Your task to perform on an android device: turn off picture-in-picture Image 0: 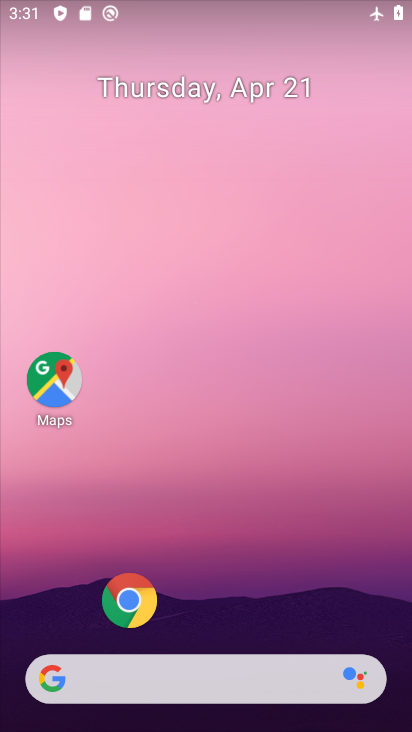
Step 0: drag from (230, 616) to (272, 205)
Your task to perform on an android device: turn off picture-in-picture Image 1: 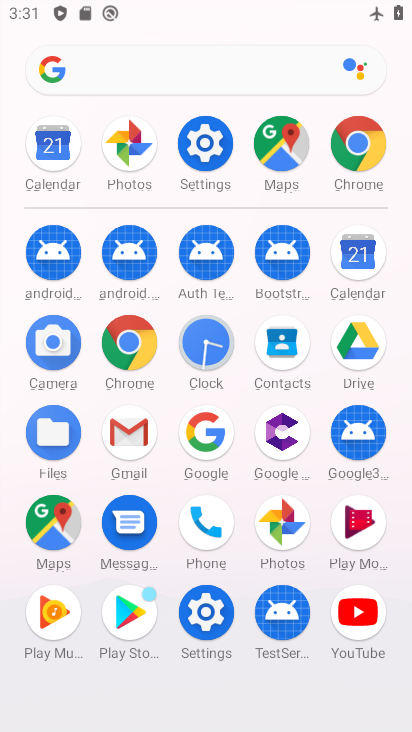
Step 1: click (213, 151)
Your task to perform on an android device: turn off picture-in-picture Image 2: 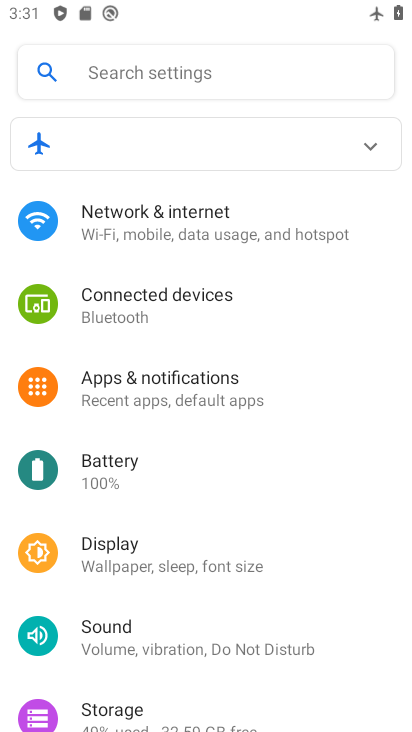
Step 2: click (186, 377)
Your task to perform on an android device: turn off picture-in-picture Image 3: 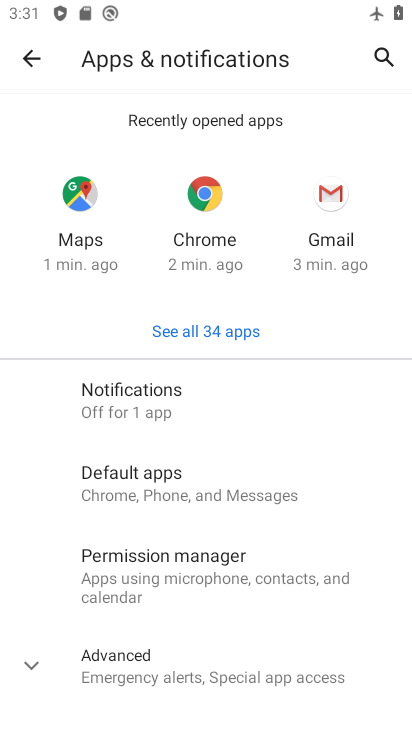
Step 3: drag from (178, 597) to (239, 327)
Your task to perform on an android device: turn off picture-in-picture Image 4: 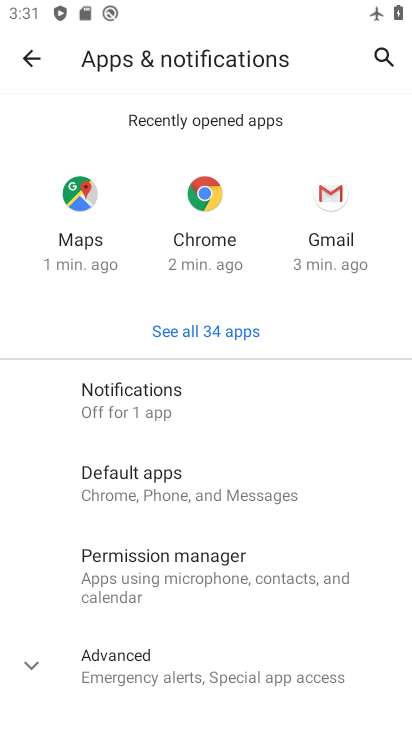
Step 4: click (142, 672)
Your task to perform on an android device: turn off picture-in-picture Image 5: 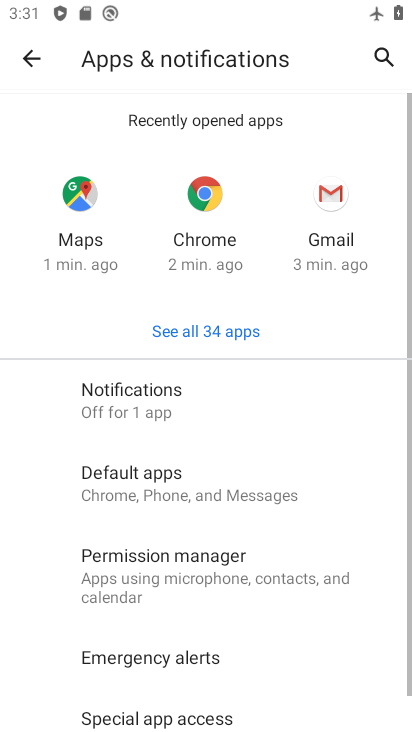
Step 5: drag from (193, 607) to (260, 254)
Your task to perform on an android device: turn off picture-in-picture Image 6: 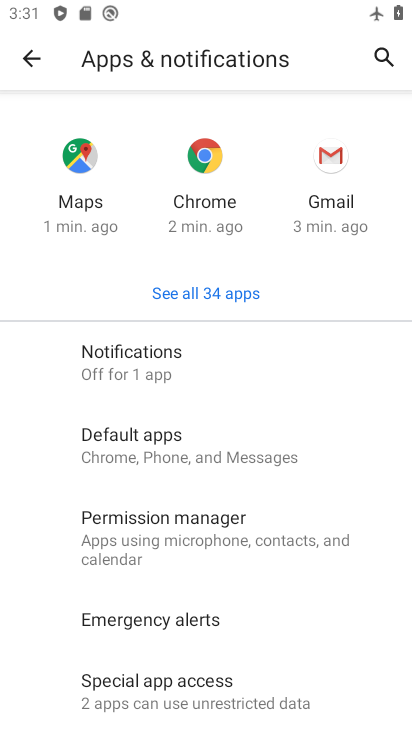
Step 6: click (188, 686)
Your task to perform on an android device: turn off picture-in-picture Image 7: 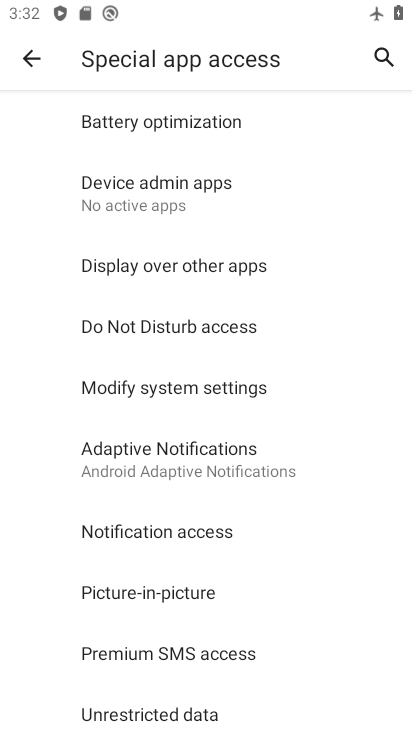
Step 7: click (204, 591)
Your task to perform on an android device: turn off picture-in-picture Image 8: 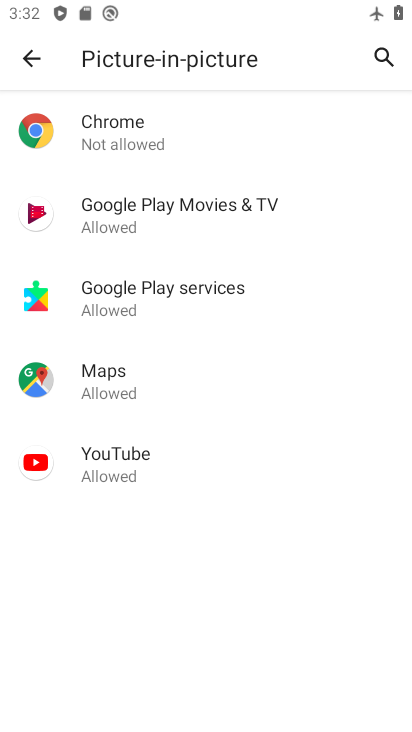
Step 8: click (152, 194)
Your task to perform on an android device: turn off picture-in-picture Image 9: 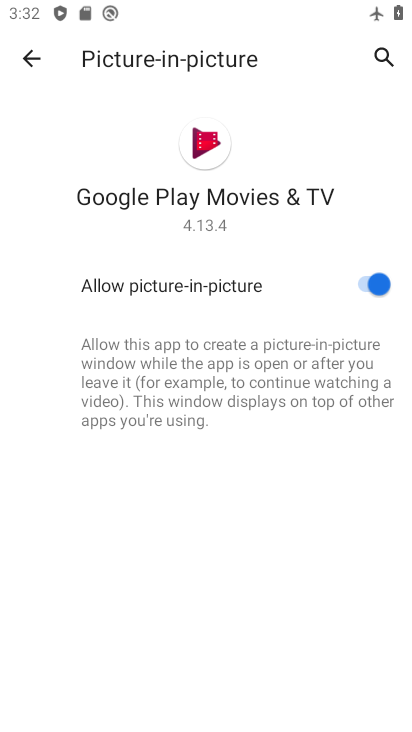
Step 9: click (383, 278)
Your task to perform on an android device: turn off picture-in-picture Image 10: 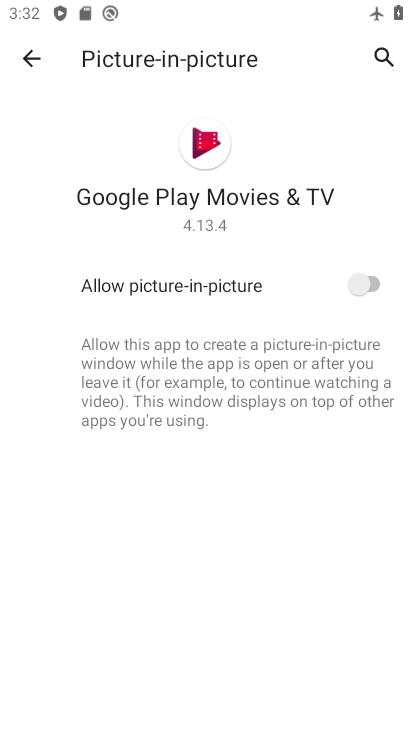
Step 10: task complete